Your task to perform on an android device: turn on bluetooth scan Image 0: 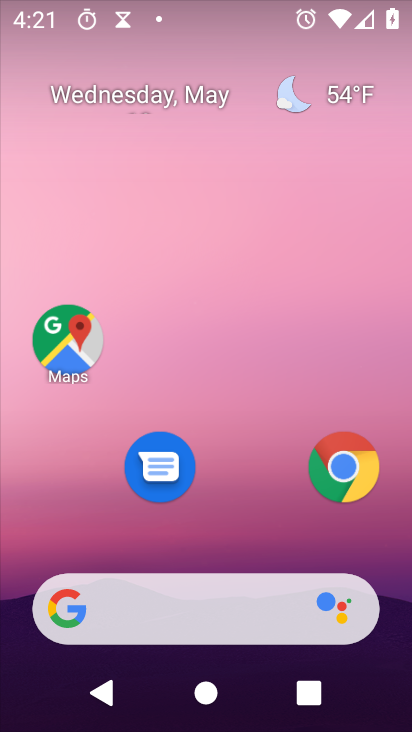
Step 0: drag from (291, 547) to (240, 103)
Your task to perform on an android device: turn on bluetooth scan Image 1: 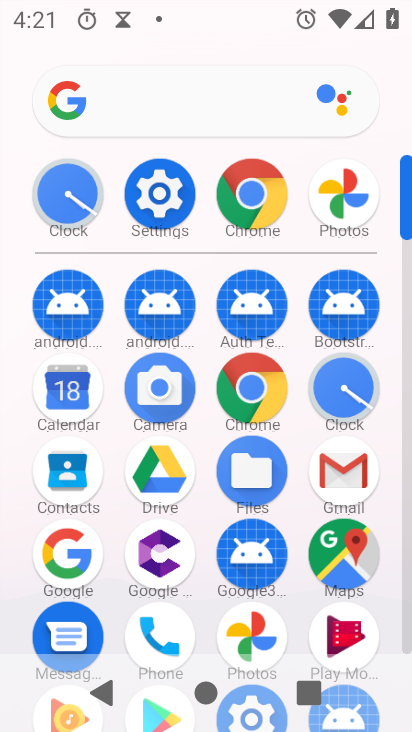
Step 1: click (177, 222)
Your task to perform on an android device: turn on bluetooth scan Image 2: 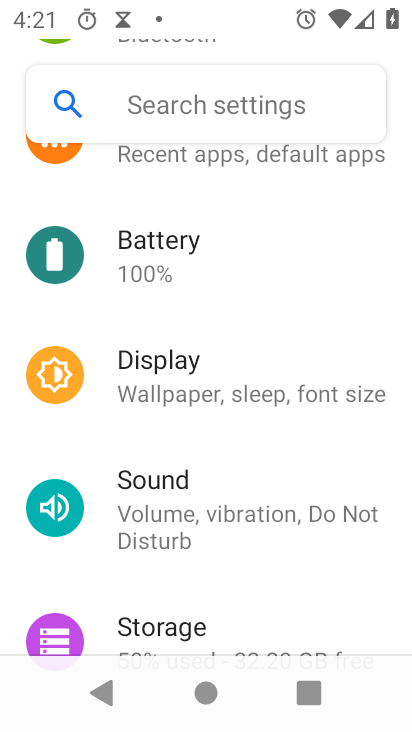
Step 2: drag from (217, 225) to (239, 469)
Your task to perform on an android device: turn on bluetooth scan Image 3: 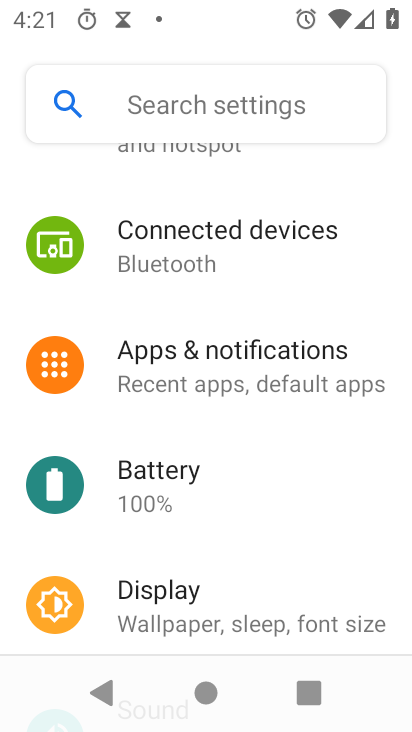
Step 3: drag from (299, 593) to (274, 215)
Your task to perform on an android device: turn on bluetooth scan Image 4: 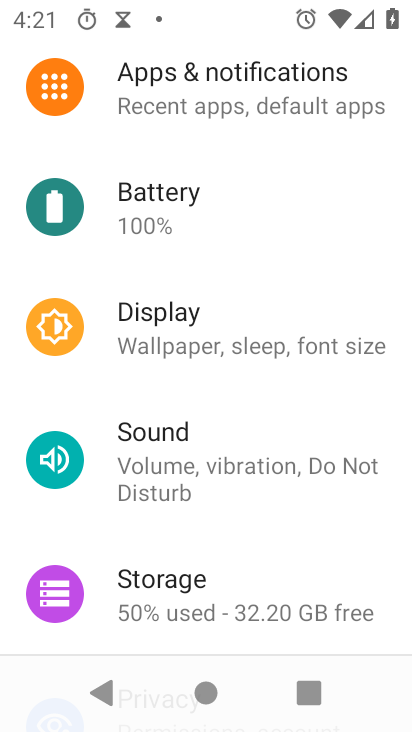
Step 4: drag from (269, 535) to (242, 207)
Your task to perform on an android device: turn on bluetooth scan Image 5: 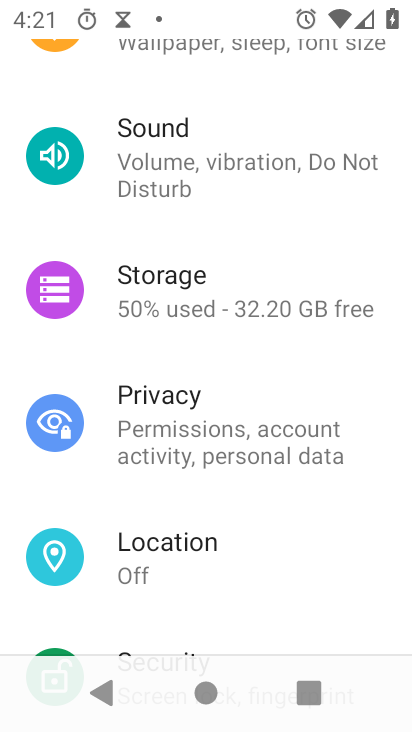
Step 5: click (269, 553)
Your task to perform on an android device: turn on bluetooth scan Image 6: 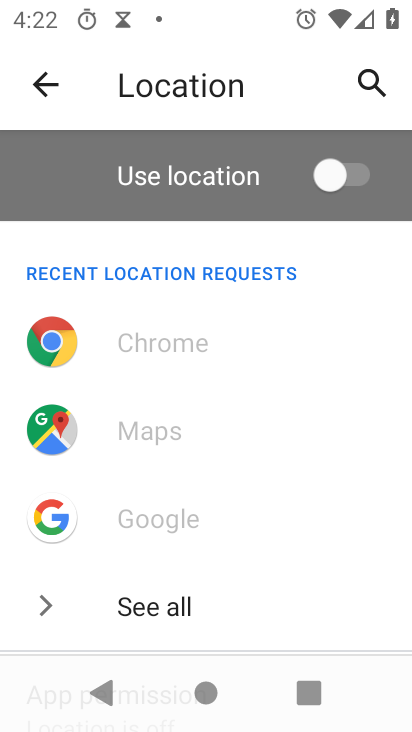
Step 6: drag from (271, 588) to (221, 278)
Your task to perform on an android device: turn on bluetooth scan Image 7: 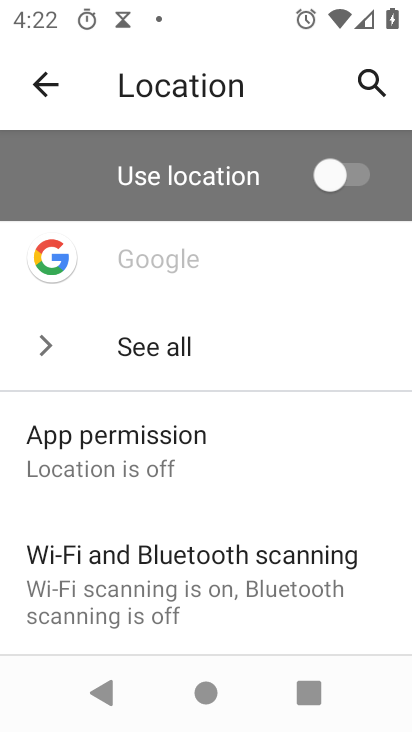
Step 7: click (210, 551)
Your task to perform on an android device: turn on bluetooth scan Image 8: 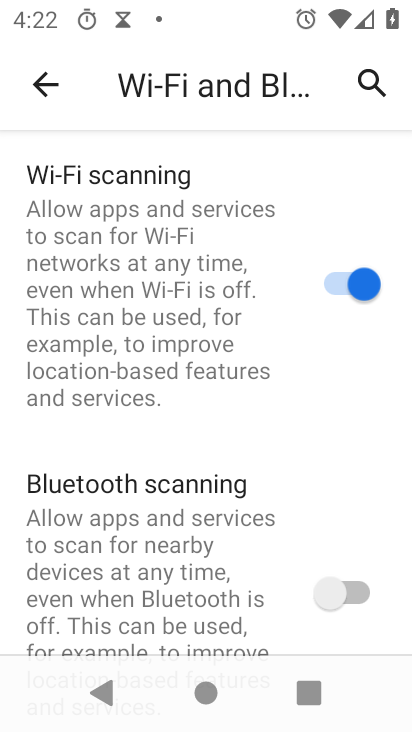
Step 8: click (335, 590)
Your task to perform on an android device: turn on bluetooth scan Image 9: 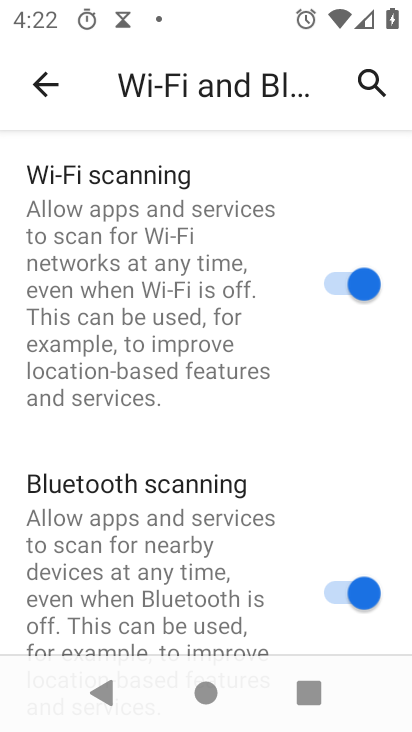
Step 9: task complete